Your task to perform on an android device: turn on data saver in the chrome app Image 0: 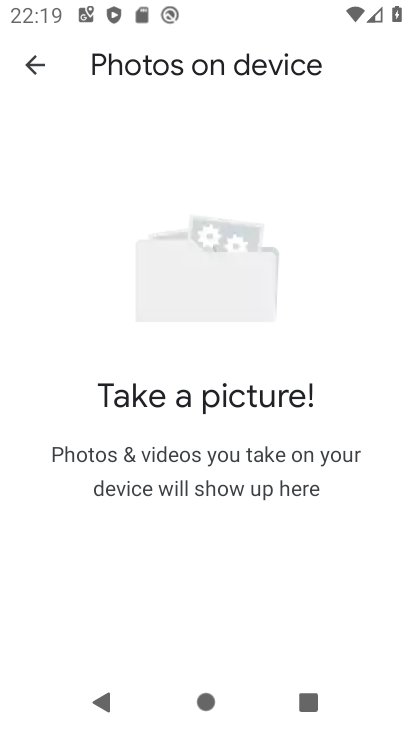
Step 0: press home button
Your task to perform on an android device: turn on data saver in the chrome app Image 1: 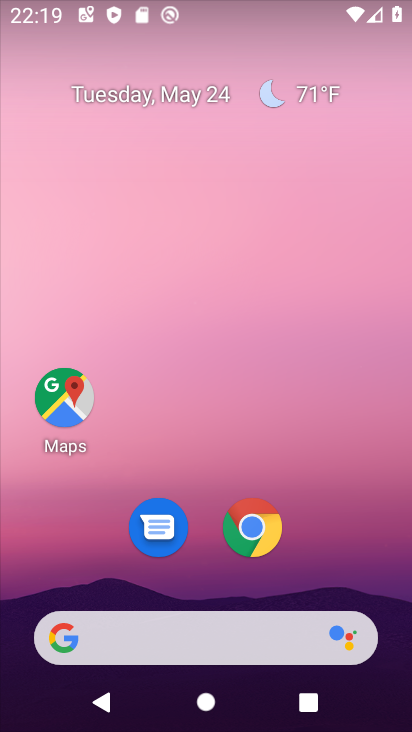
Step 1: click (259, 532)
Your task to perform on an android device: turn on data saver in the chrome app Image 2: 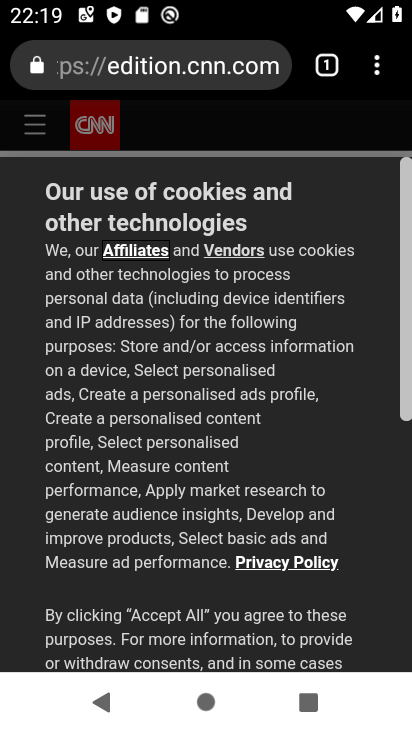
Step 2: click (372, 76)
Your task to perform on an android device: turn on data saver in the chrome app Image 3: 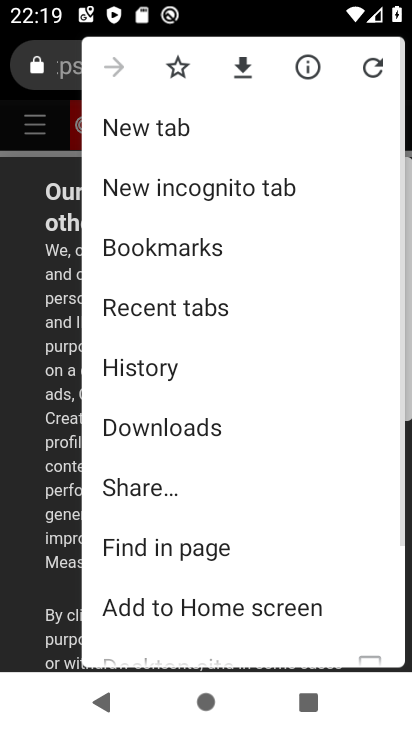
Step 3: drag from (241, 597) to (274, 224)
Your task to perform on an android device: turn on data saver in the chrome app Image 4: 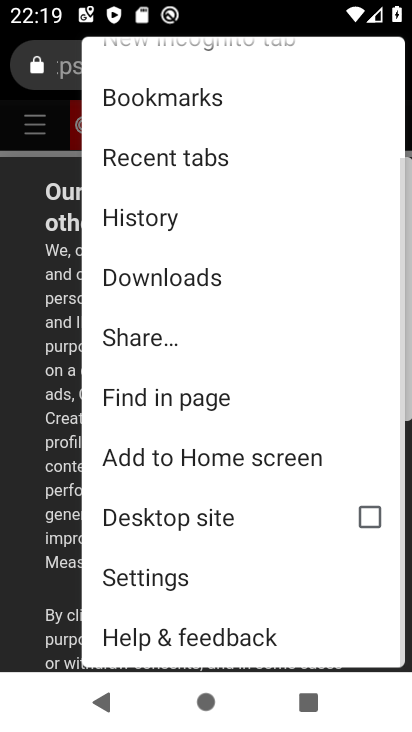
Step 4: click (211, 583)
Your task to perform on an android device: turn on data saver in the chrome app Image 5: 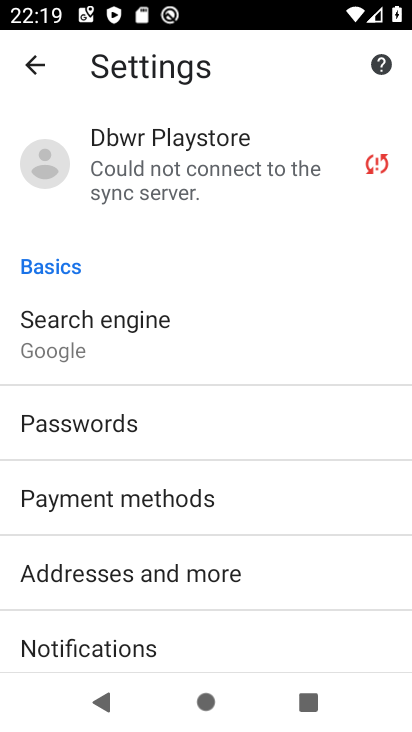
Step 5: drag from (152, 619) to (161, 272)
Your task to perform on an android device: turn on data saver in the chrome app Image 6: 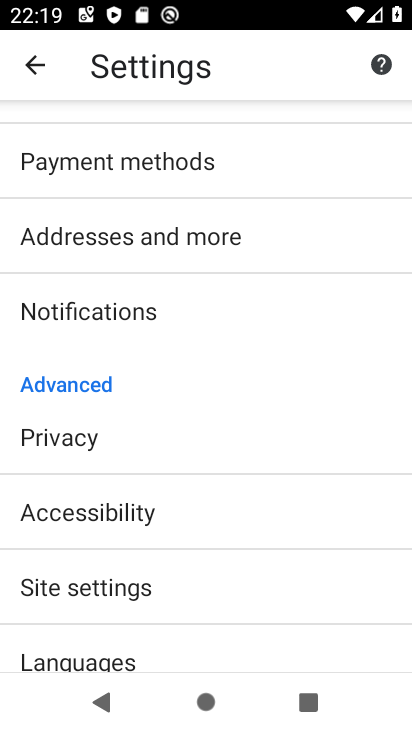
Step 6: drag from (167, 569) to (182, 197)
Your task to perform on an android device: turn on data saver in the chrome app Image 7: 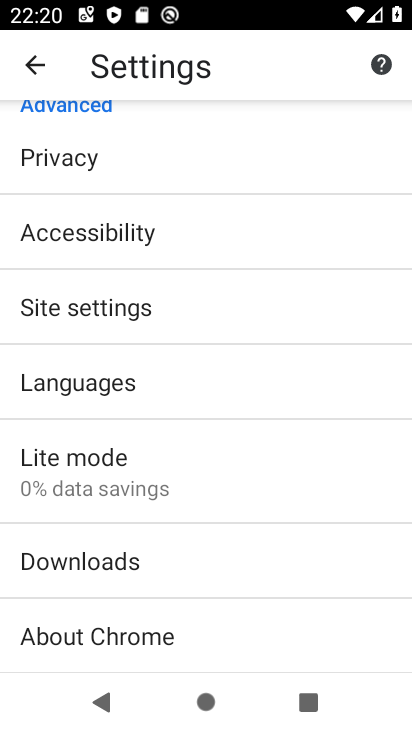
Step 7: click (99, 469)
Your task to perform on an android device: turn on data saver in the chrome app Image 8: 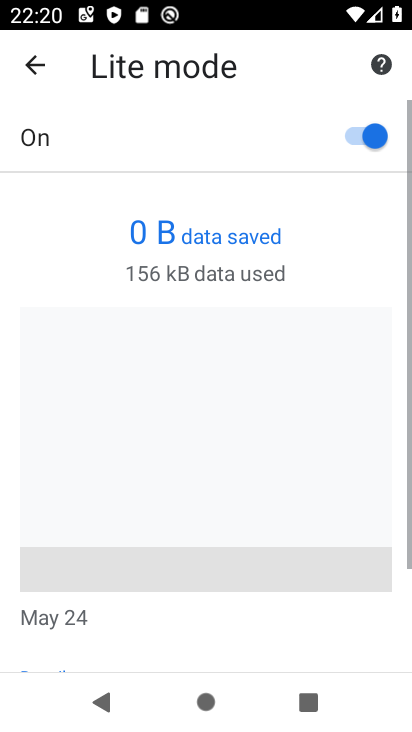
Step 8: task complete